Your task to perform on an android device: Go to Maps Image 0: 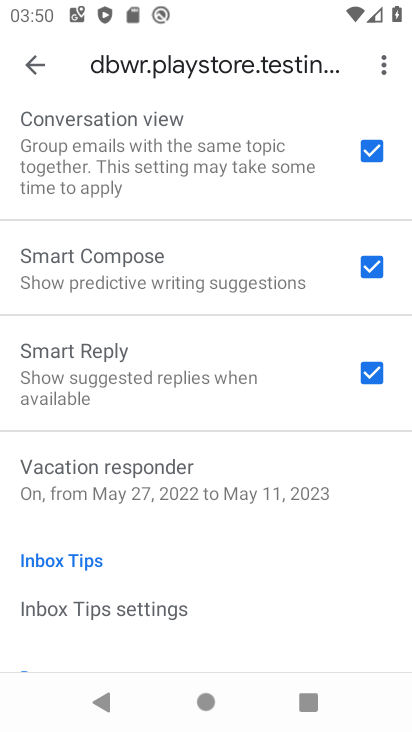
Step 0: press home button
Your task to perform on an android device: Go to Maps Image 1: 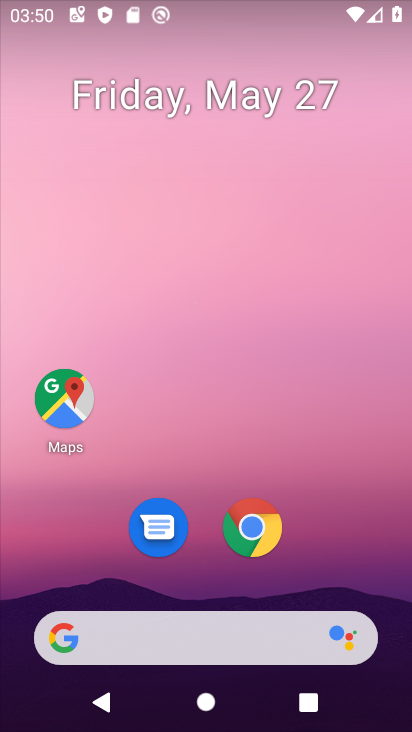
Step 1: click (44, 406)
Your task to perform on an android device: Go to Maps Image 2: 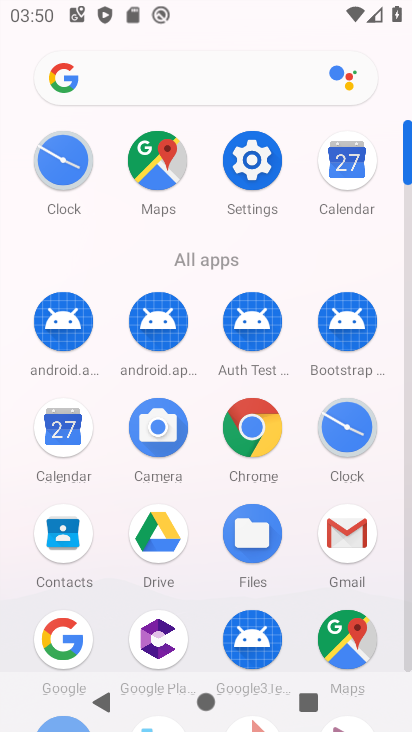
Step 2: task complete